Your task to perform on an android device: What's the weather? Image 0: 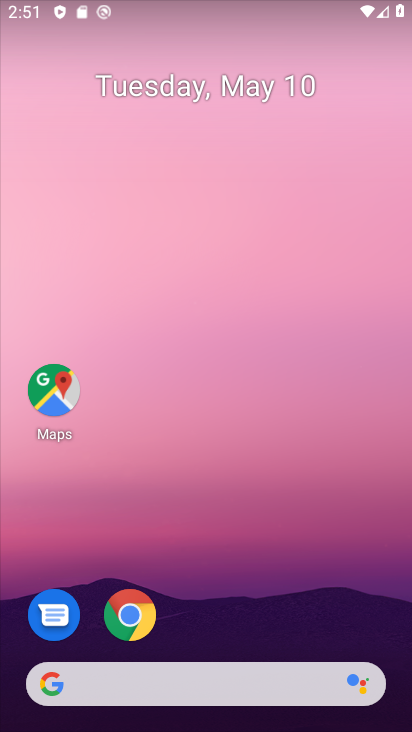
Step 0: click (147, 614)
Your task to perform on an android device: What's the weather? Image 1: 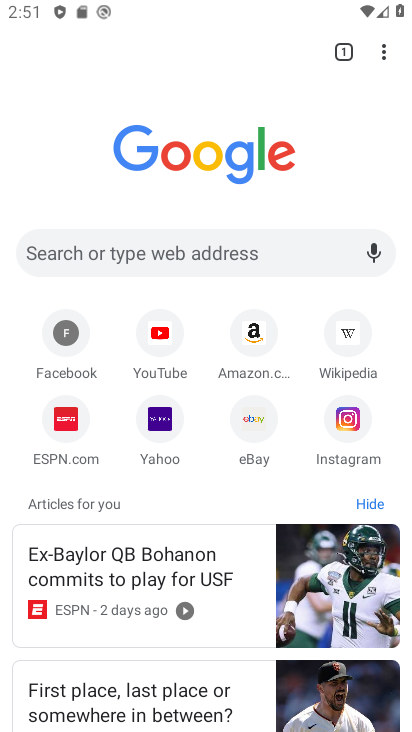
Step 1: click (156, 248)
Your task to perform on an android device: What's the weather? Image 2: 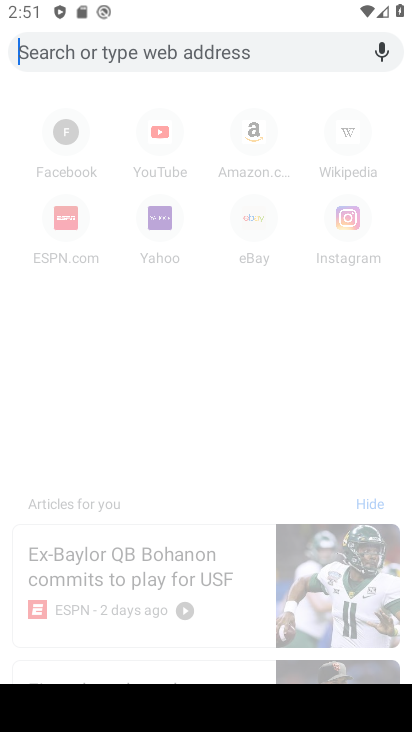
Step 2: type "whats the weather?"
Your task to perform on an android device: What's the weather? Image 3: 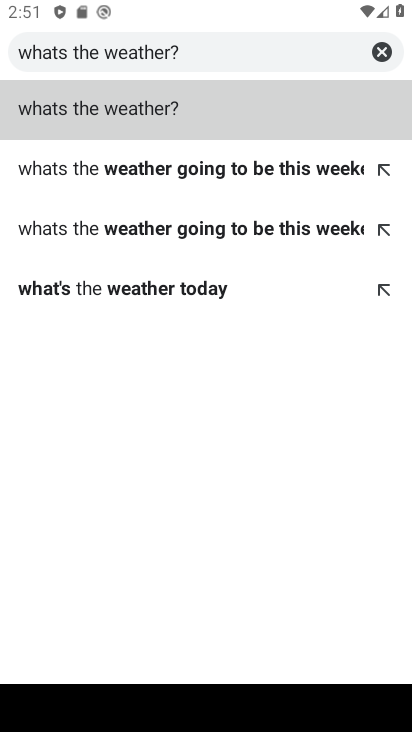
Step 3: click (140, 112)
Your task to perform on an android device: What's the weather? Image 4: 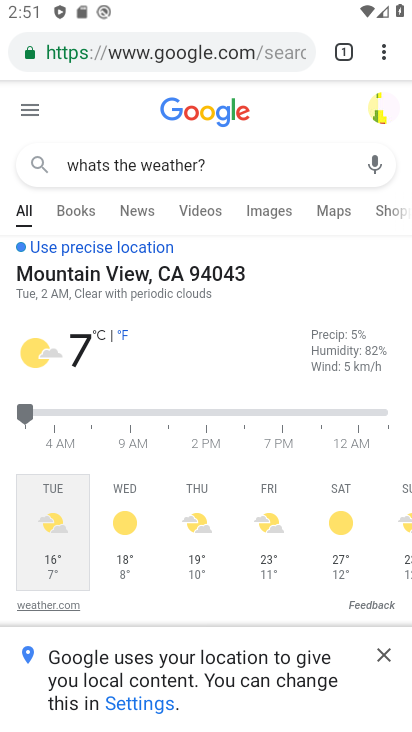
Step 4: task complete